Your task to perform on an android device: set an alarm Image 0: 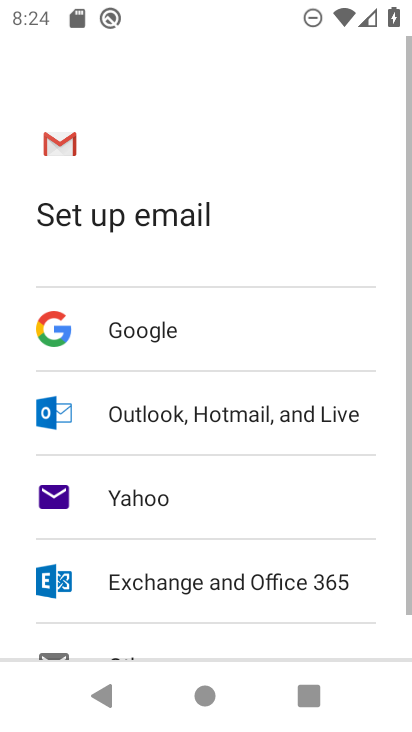
Step 0: press home button
Your task to perform on an android device: set an alarm Image 1: 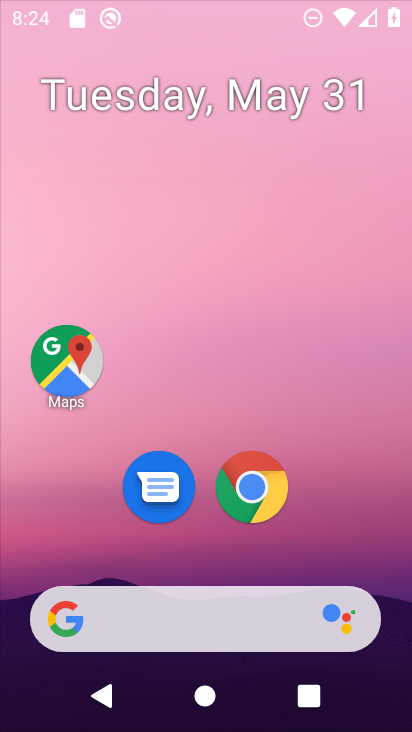
Step 1: drag from (159, 724) to (198, 73)
Your task to perform on an android device: set an alarm Image 2: 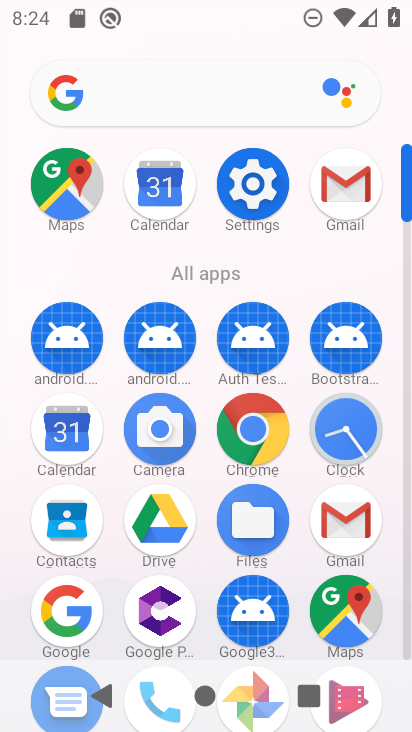
Step 2: click (348, 435)
Your task to perform on an android device: set an alarm Image 3: 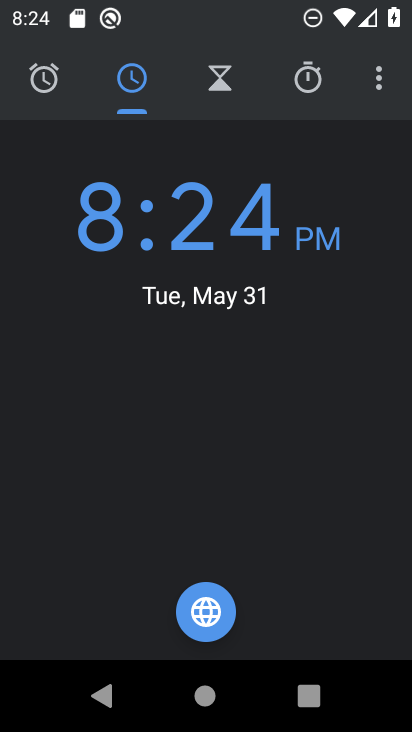
Step 3: click (45, 65)
Your task to perform on an android device: set an alarm Image 4: 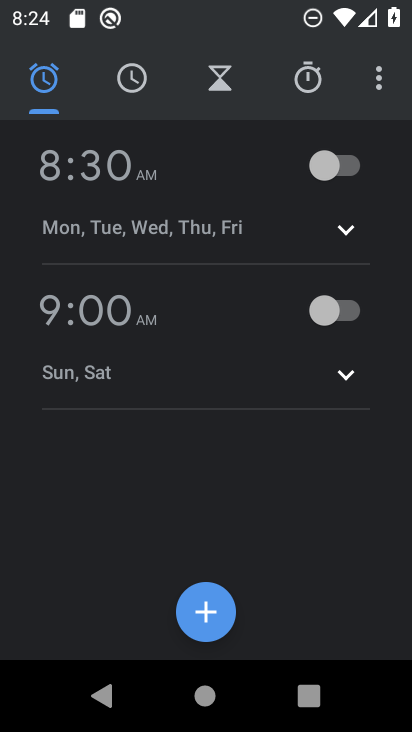
Step 4: click (338, 317)
Your task to perform on an android device: set an alarm Image 5: 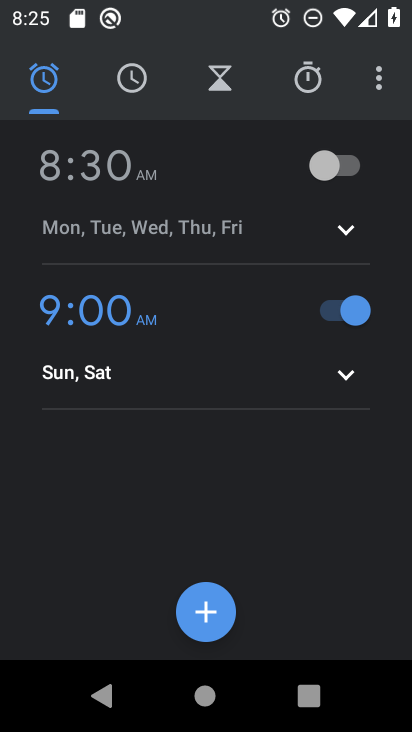
Step 5: task complete